Your task to perform on an android device: Open the calendar and show me this week's events? Image 0: 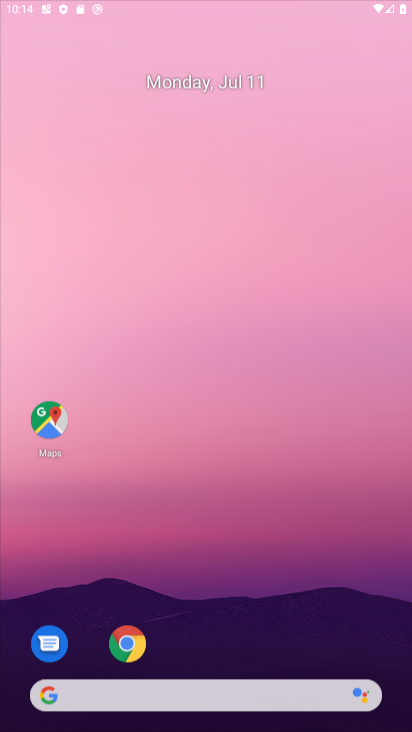
Step 0: press home button
Your task to perform on an android device: Open the calendar and show me this week's events? Image 1: 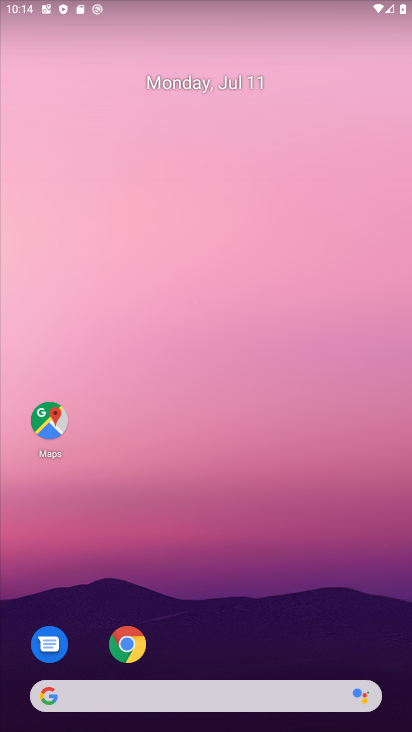
Step 1: drag from (199, 660) to (232, 116)
Your task to perform on an android device: Open the calendar and show me this week's events? Image 2: 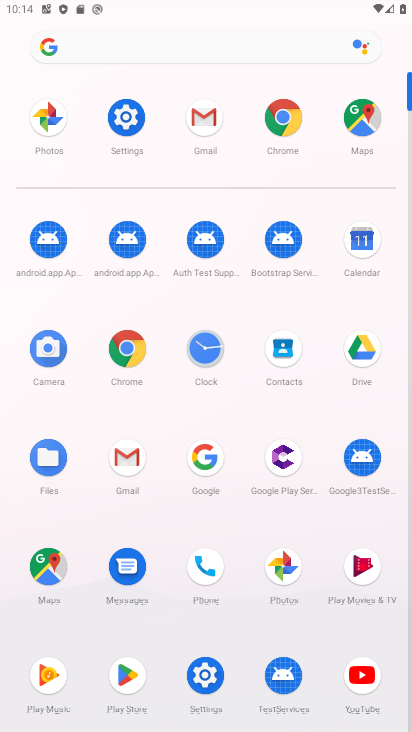
Step 2: click (358, 226)
Your task to perform on an android device: Open the calendar and show me this week's events? Image 3: 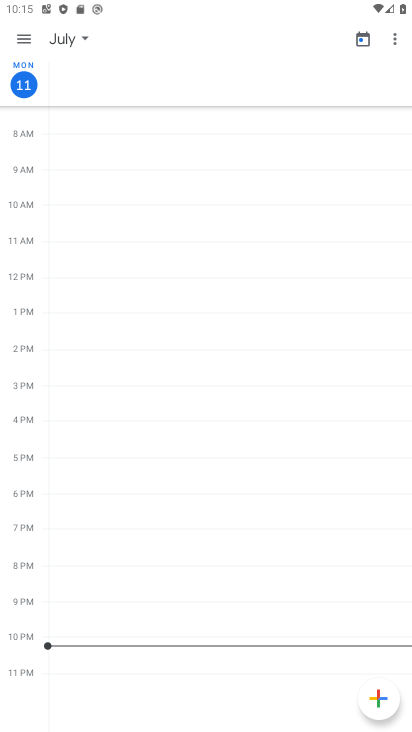
Step 3: click (14, 25)
Your task to perform on an android device: Open the calendar and show me this week's events? Image 4: 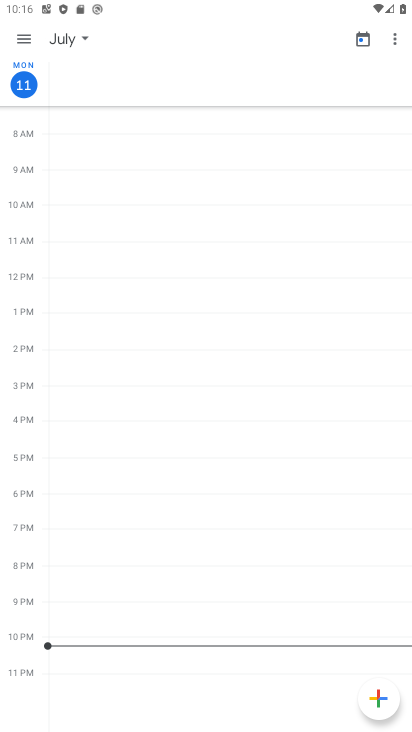
Step 4: click (22, 37)
Your task to perform on an android device: Open the calendar and show me this week's events? Image 5: 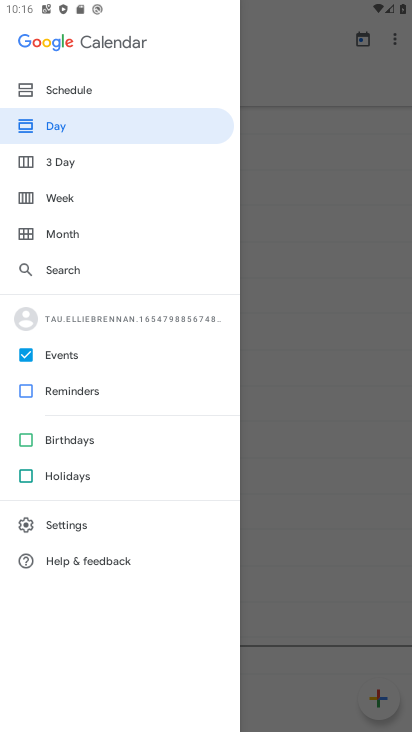
Step 5: click (55, 197)
Your task to perform on an android device: Open the calendar and show me this week's events? Image 6: 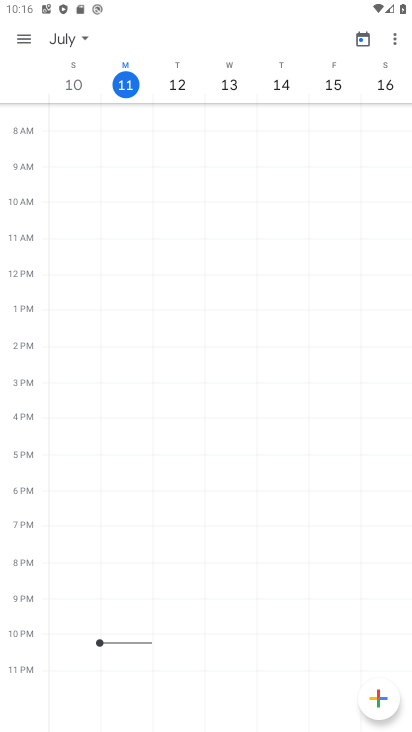
Step 6: task complete